Your task to perform on an android device: Go to Wikipedia Image 0: 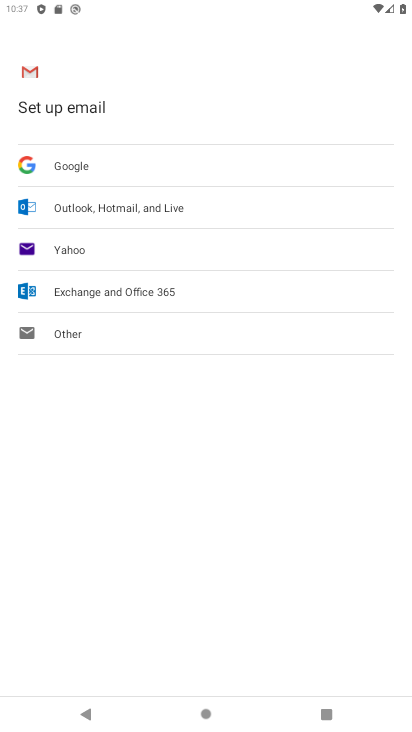
Step 0: press home button
Your task to perform on an android device: Go to Wikipedia Image 1: 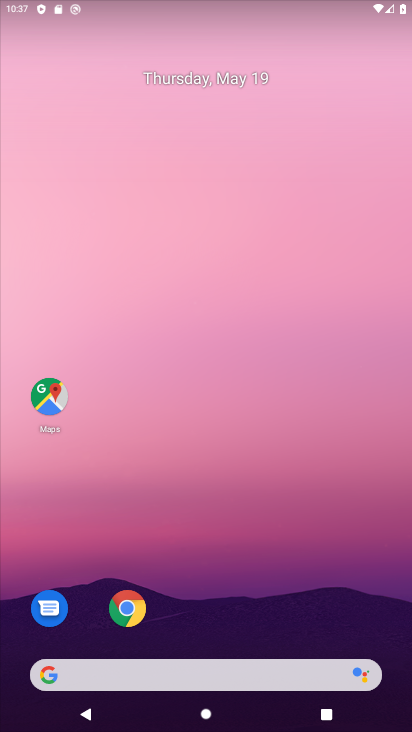
Step 1: click (117, 597)
Your task to perform on an android device: Go to Wikipedia Image 2: 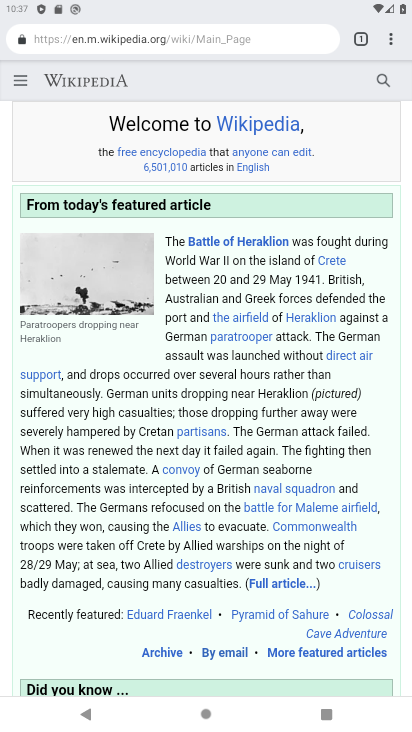
Step 2: task complete